Your task to perform on an android device: Go to internet settings Image 0: 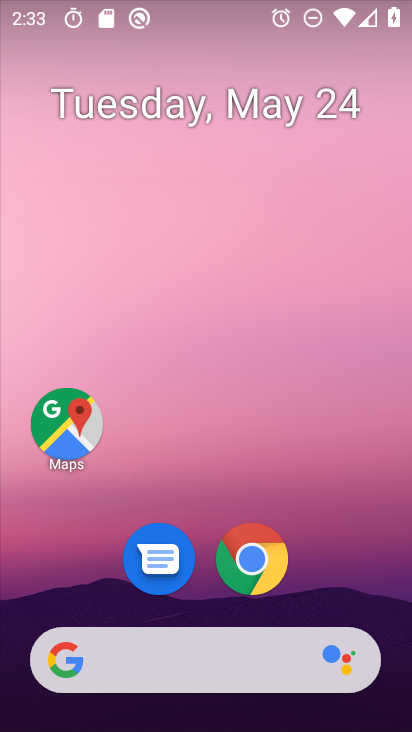
Step 0: drag from (382, 408) to (382, 335)
Your task to perform on an android device: Go to internet settings Image 1: 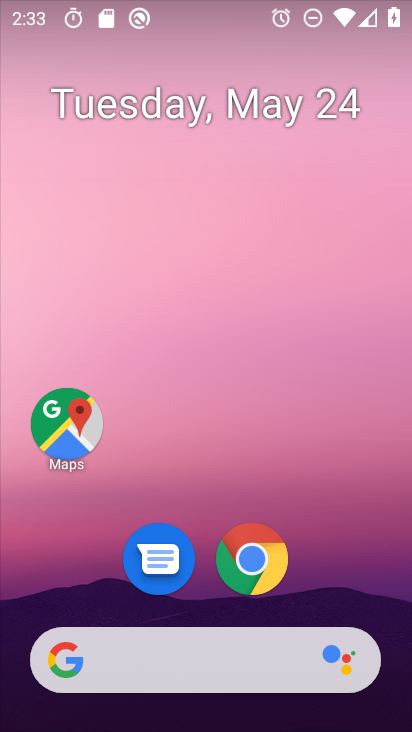
Step 1: drag from (400, 702) to (395, 334)
Your task to perform on an android device: Go to internet settings Image 2: 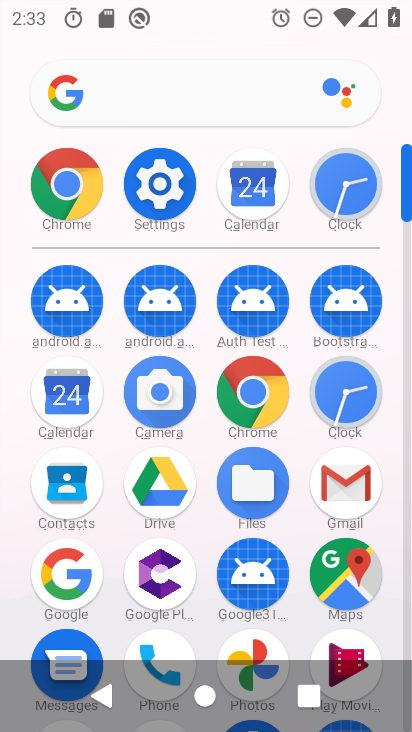
Step 2: click (144, 192)
Your task to perform on an android device: Go to internet settings Image 3: 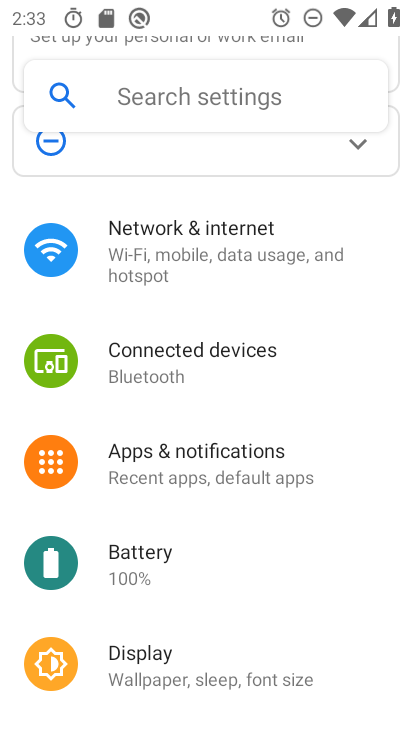
Step 3: click (184, 247)
Your task to perform on an android device: Go to internet settings Image 4: 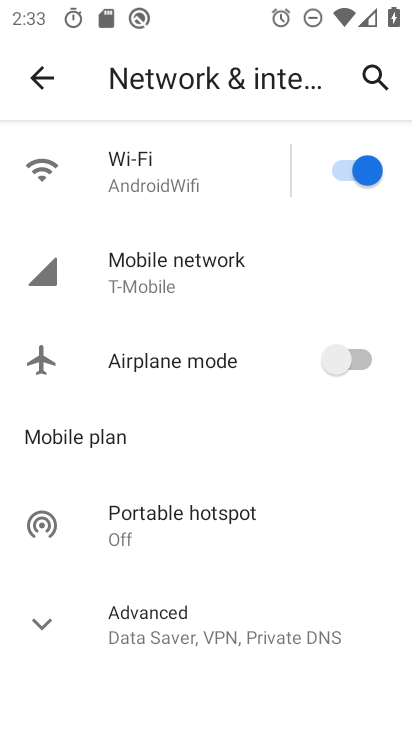
Step 4: task complete